Your task to perform on an android device: check google app version Image 0: 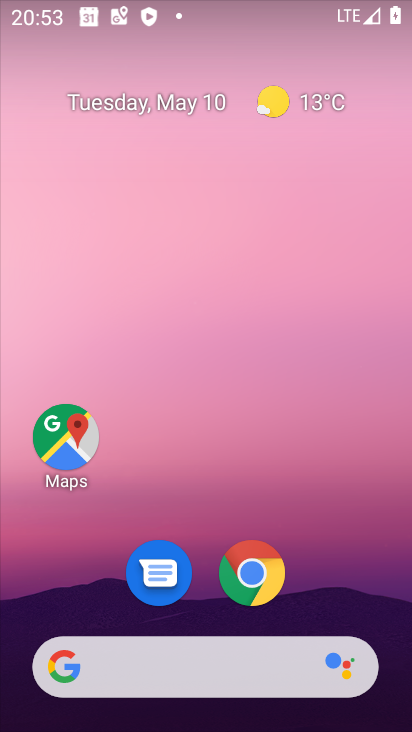
Step 0: drag from (376, 631) to (331, 14)
Your task to perform on an android device: check google app version Image 1: 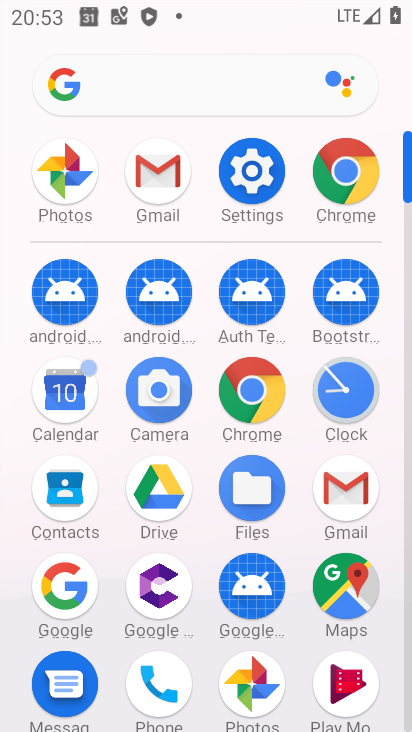
Step 1: click (70, 591)
Your task to perform on an android device: check google app version Image 2: 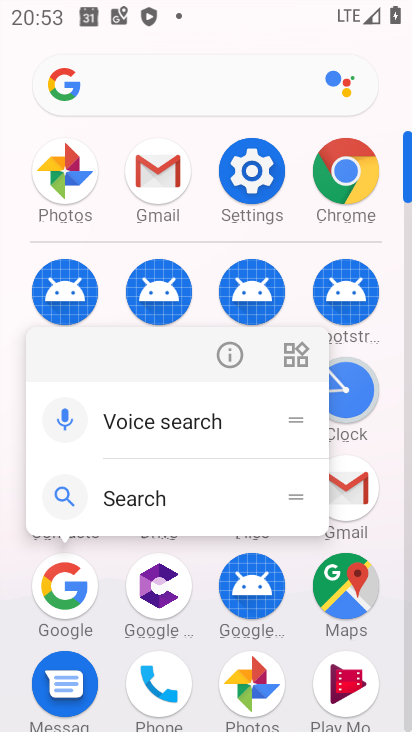
Step 2: click (225, 357)
Your task to perform on an android device: check google app version Image 3: 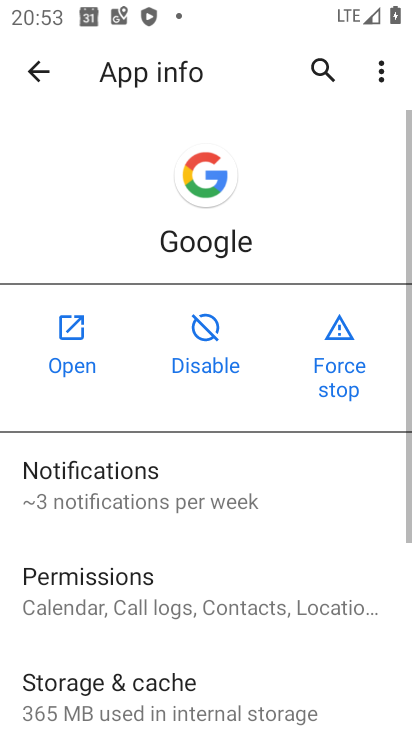
Step 3: drag from (295, 617) to (292, 124)
Your task to perform on an android device: check google app version Image 4: 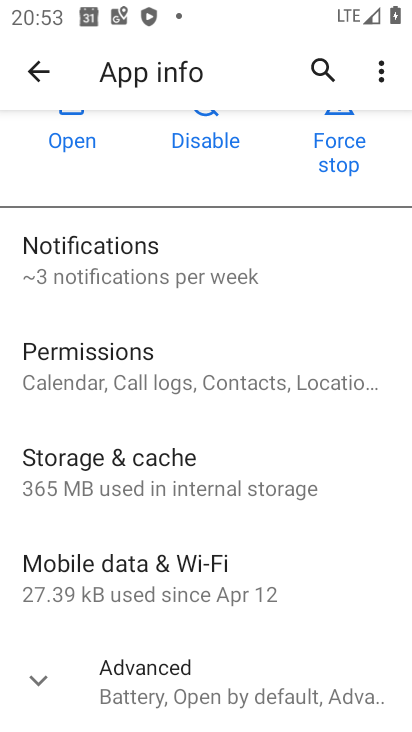
Step 4: click (38, 686)
Your task to perform on an android device: check google app version Image 5: 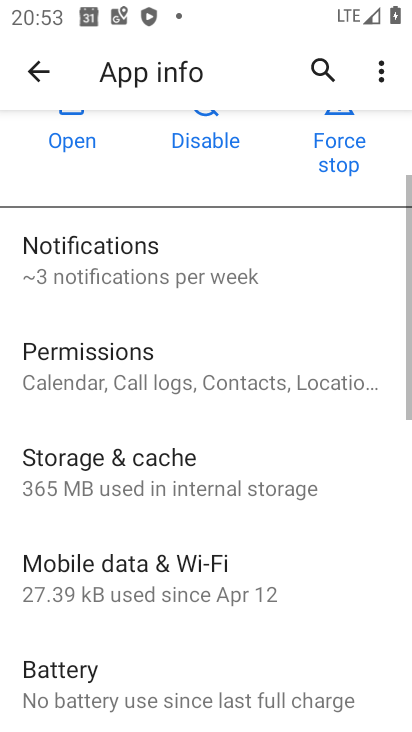
Step 5: task complete